Your task to perform on an android device: Open eBay Image 0: 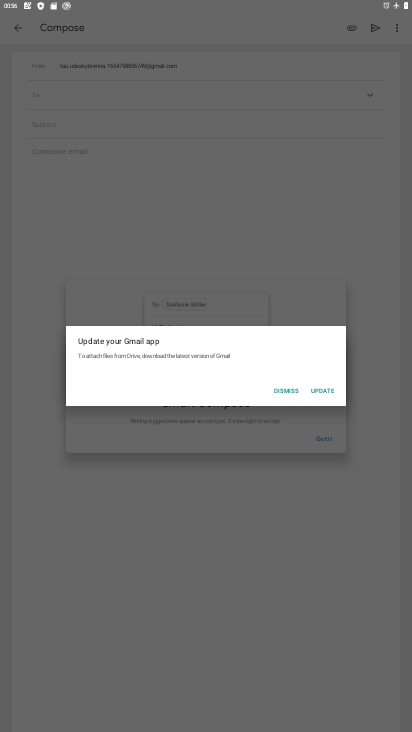
Step 0: press home button
Your task to perform on an android device: Open eBay Image 1: 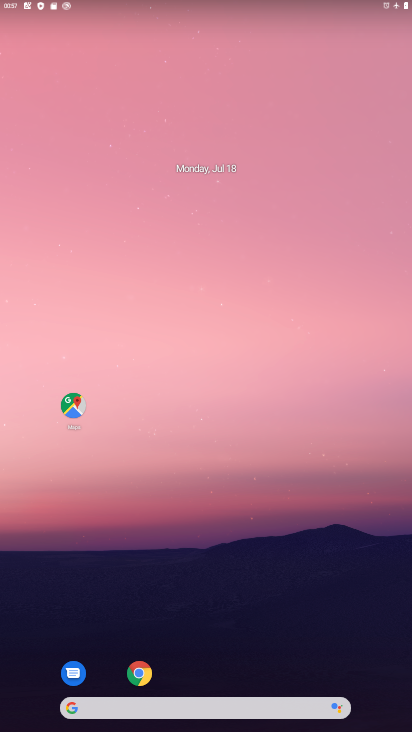
Step 1: click (146, 674)
Your task to perform on an android device: Open eBay Image 2: 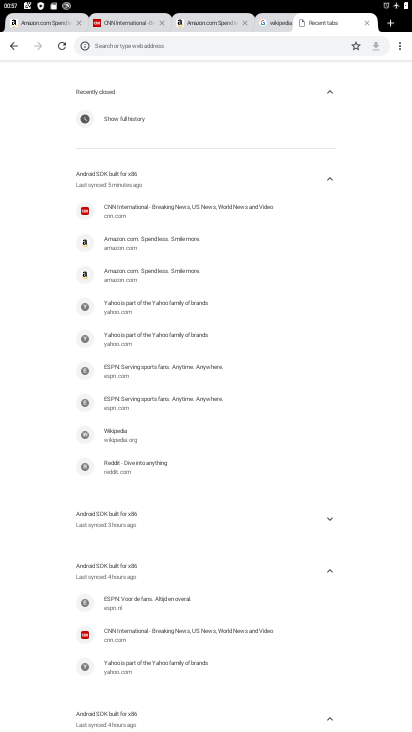
Step 2: click (391, 22)
Your task to perform on an android device: Open eBay Image 3: 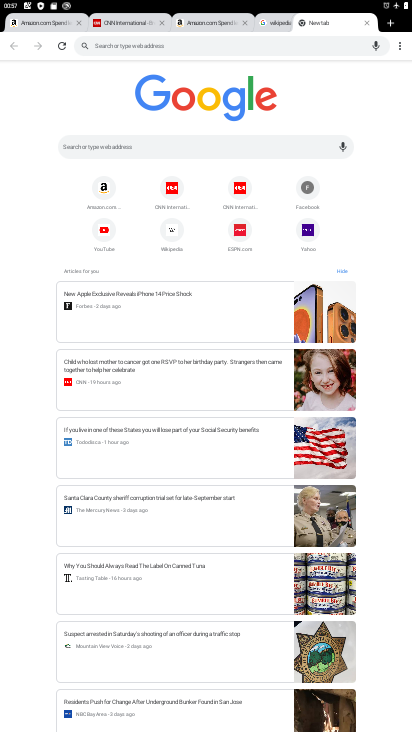
Step 3: type "ebay"
Your task to perform on an android device: Open eBay Image 4: 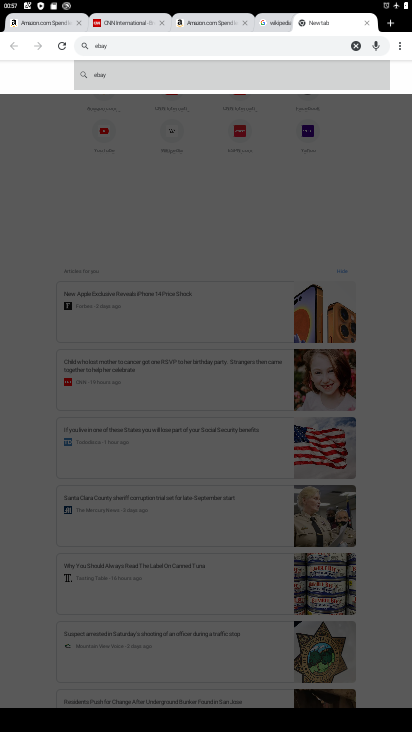
Step 4: click (167, 79)
Your task to perform on an android device: Open eBay Image 5: 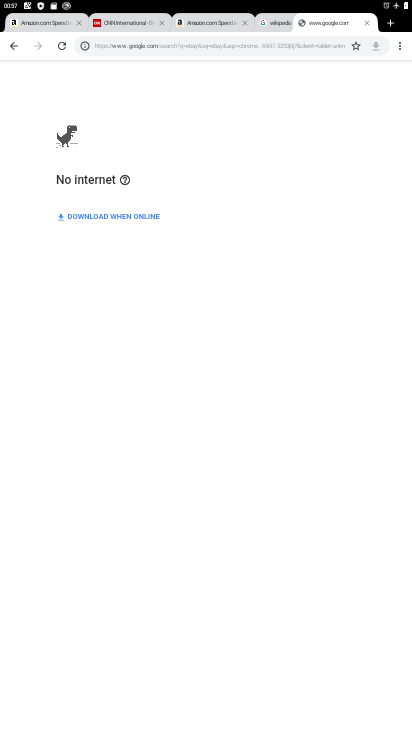
Step 5: task complete